Your task to perform on an android device: Open settings Image 0: 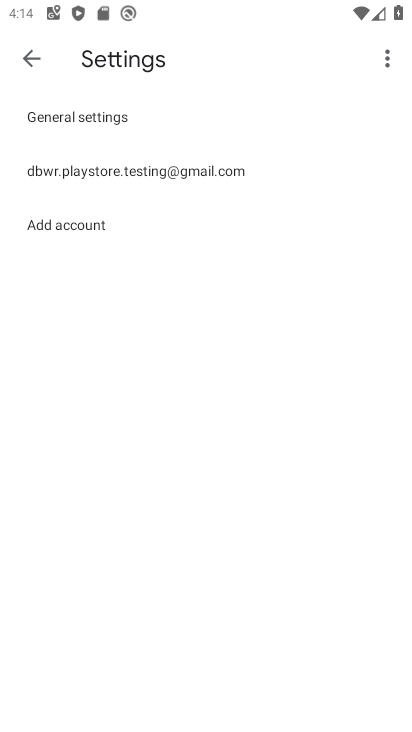
Step 0: press home button
Your task to perform on an android device: Open settings Image 1: 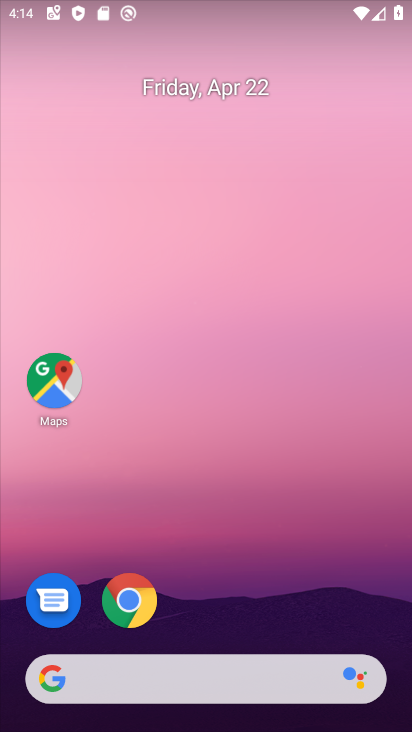
Step 1: drag from (290, 725) to (332, 112)
Your task to perform on an android device: Open settings Image 2: 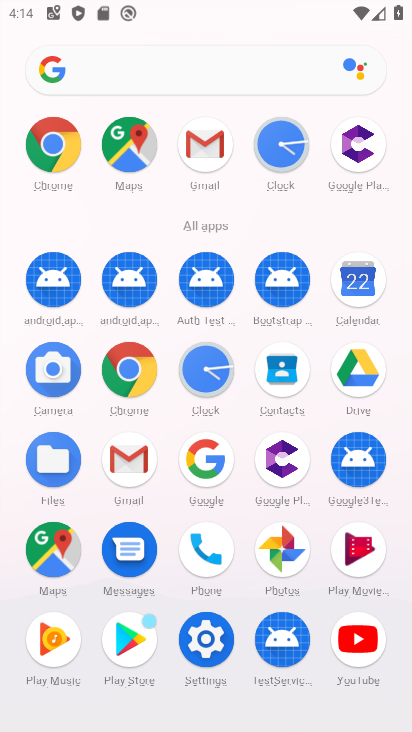
Step 2: click (214, 634)
Your task to perform on an android device: Open settings Image 3: 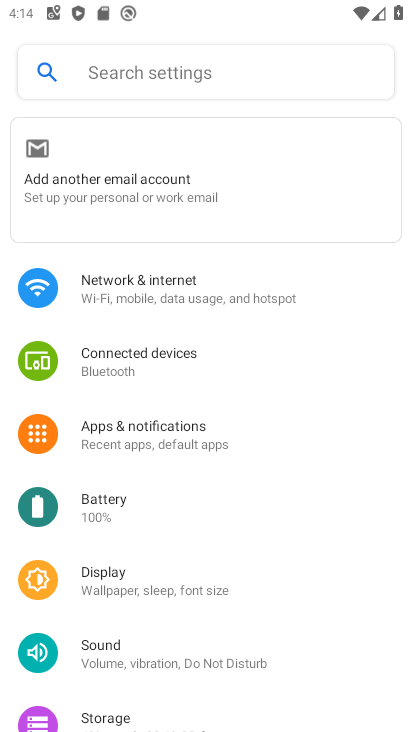
Step 3: task complete